Your task to perform on an android device: turn off translation in the chrome app Image 0: 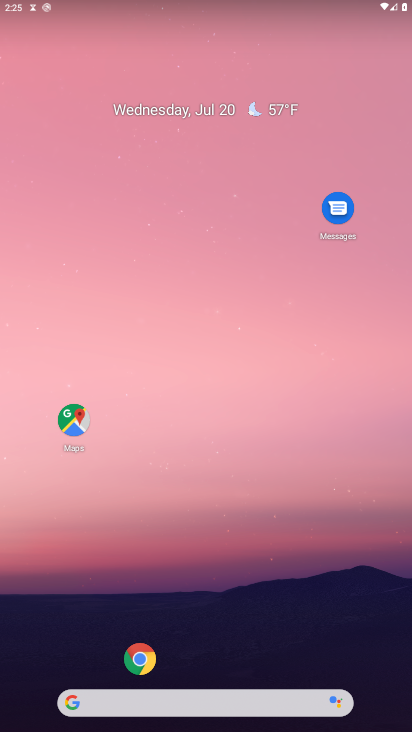
Step 0: click (149, 641)
Your task to perform on an android device: turn off translation in the chrome app Image 1: 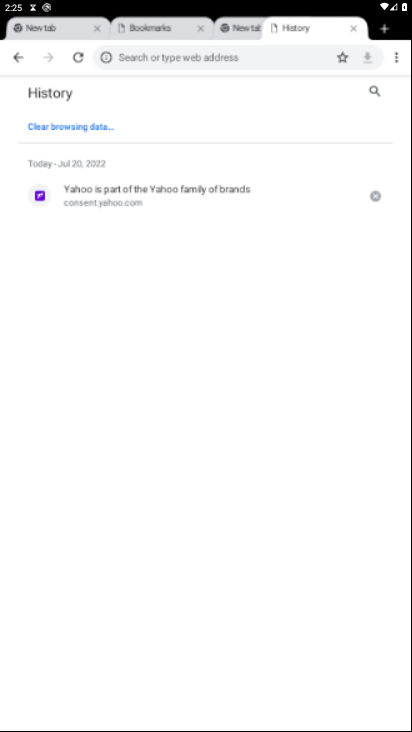
Step 1: click (144, 652)
Your task to perform on an android device: turn off translation in the chrome app Image 2: 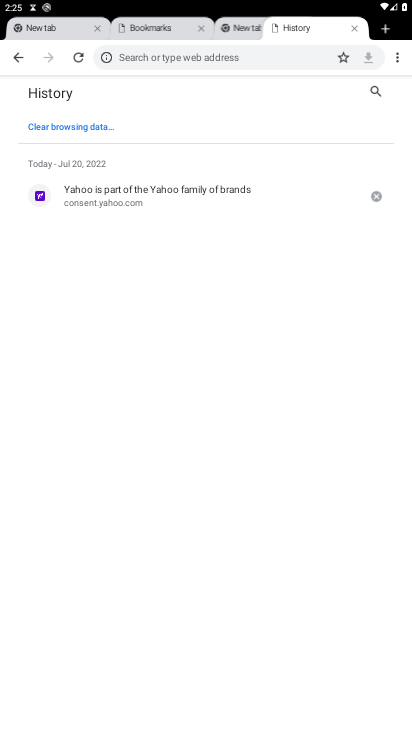
Step 2: click (396, 54)
Your task to perform on an android device: turn off translation in the chrome app Image 3: 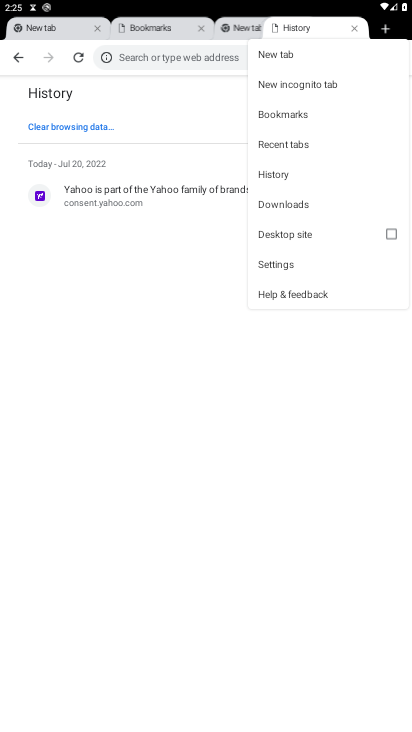
Step 3: click (292, 257)
Your task to perform on an android device: turn off translation in the chrome app Image 4: 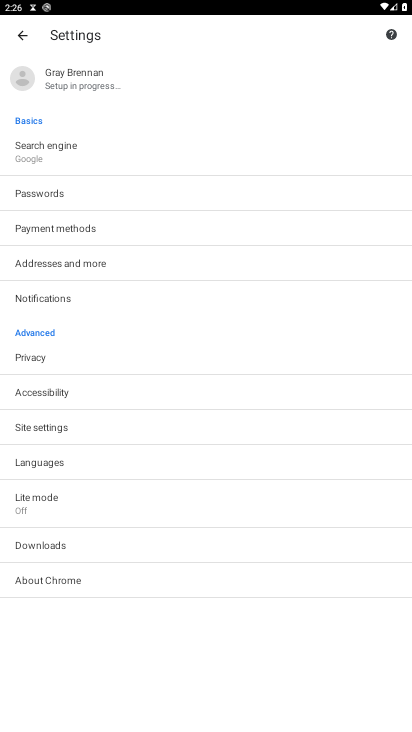
Step 4: click (53, 459)
Your task to perform on an android device: turn off translation in the chrome app Image 5: 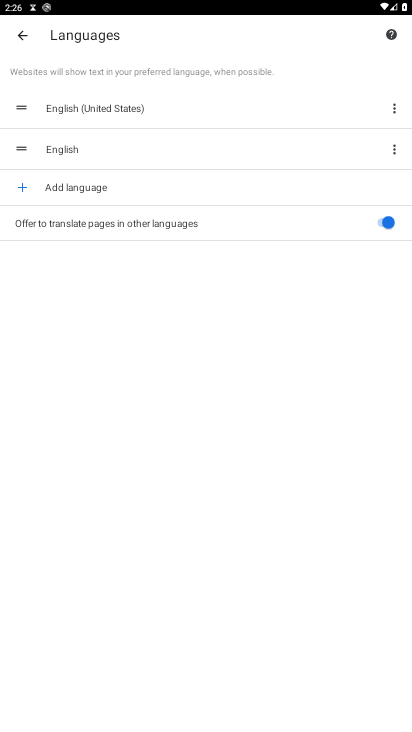
Step 5: task complete